Your task to perform on an android device: What's the weather going to be tomorrow? Image 0: 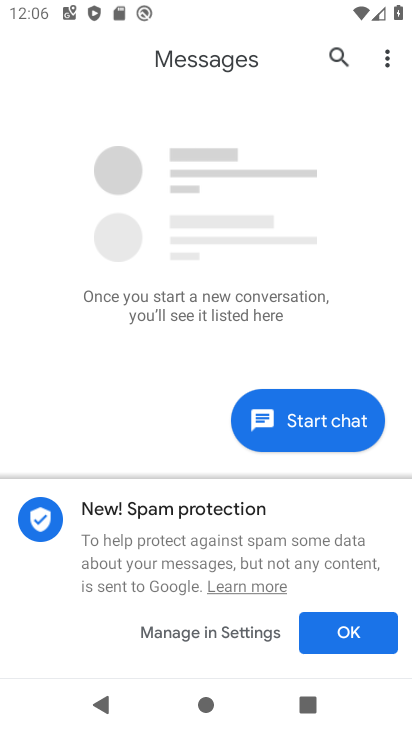
Step 0: click (362, 635)
Your task to perform on an android device: What's the weather going to be tomorrow? Image 1: 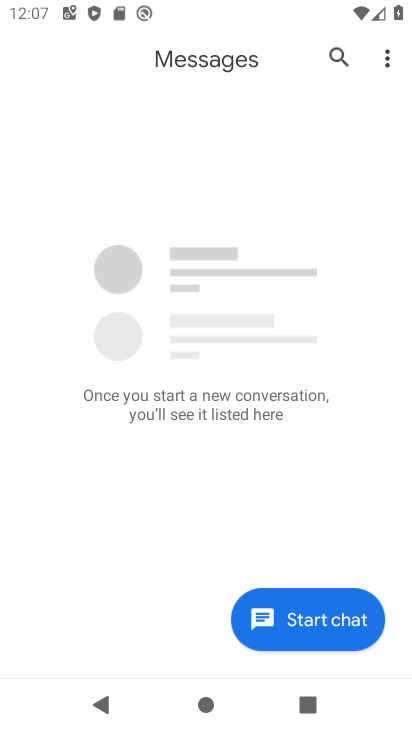
Step 1: press home button
Your task to perform on an android device: What's the weather going to be tomorrow? Image 2: 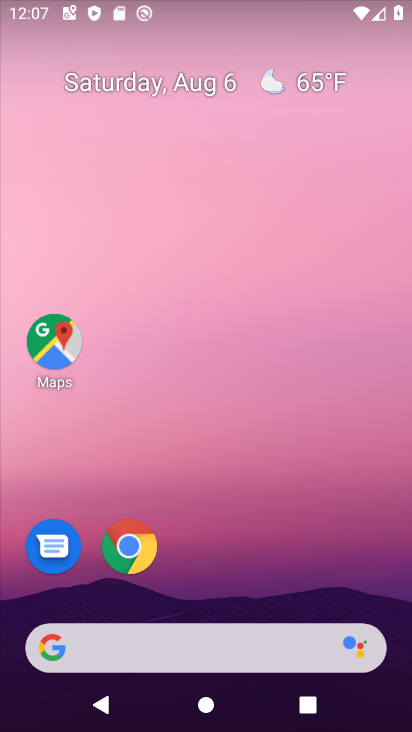
Step 2: drag from (217, 479) to (368, 1)
Your task to perform on an android device: What's the weather going to be tomorrow? Image 3: 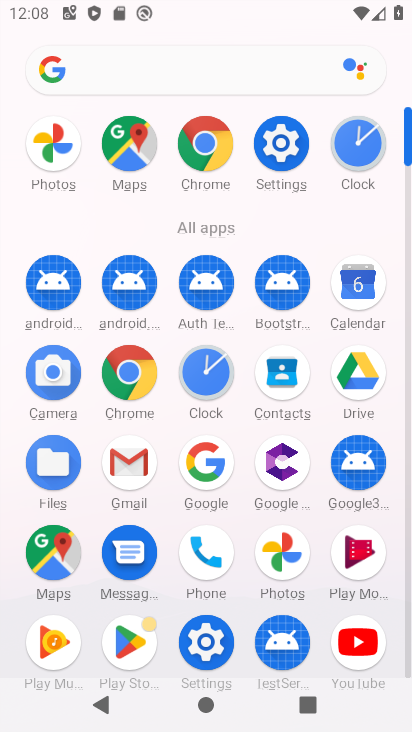
Step 3: click (135, 388)
Your task to perform on an android device: What's the weather going to be tomorrow? Image 4: 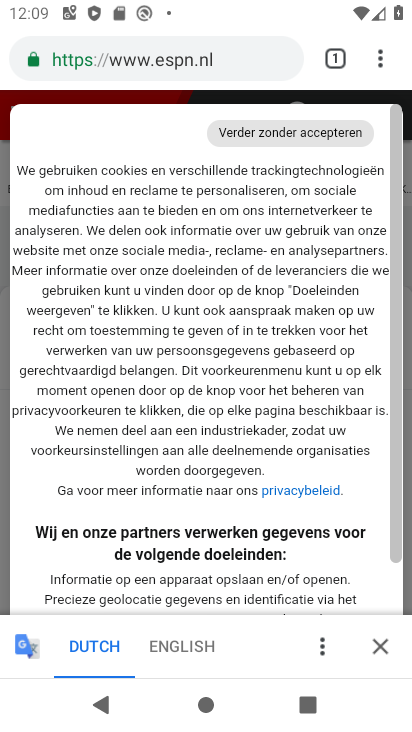
Step 4: click (339, 50)
Your task to perform on an android device: What's the weather going to be tomorrow? Image 5: 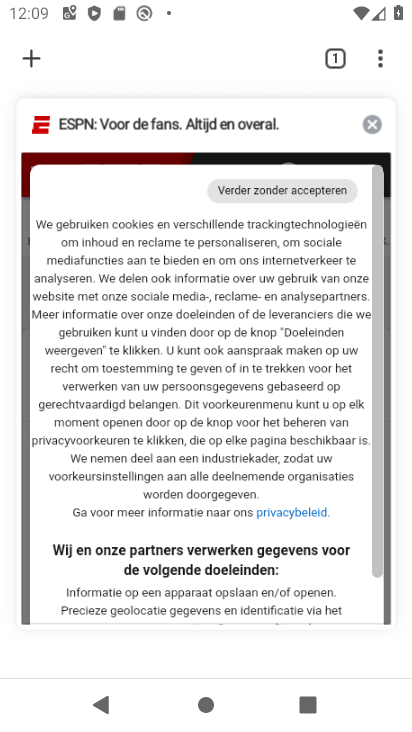
Step 5: click (20, 55)
Your task to perform on an android device: What's the weather going to be tomorrow? Image 6: 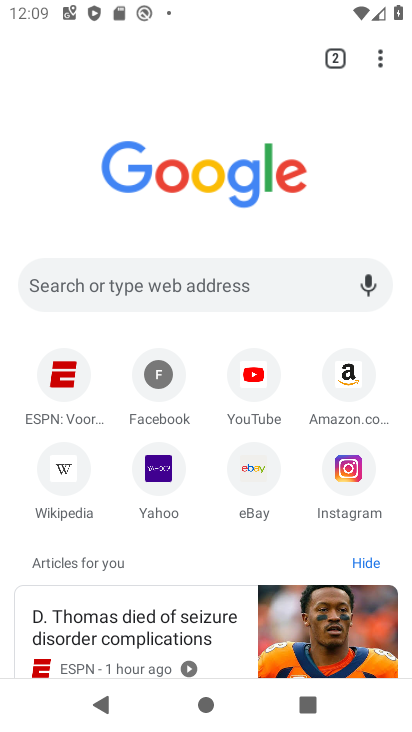
Step 6: click (193, 297)
Your task to perform on an android device: What's the weather going to be tomorrow? Image 7: 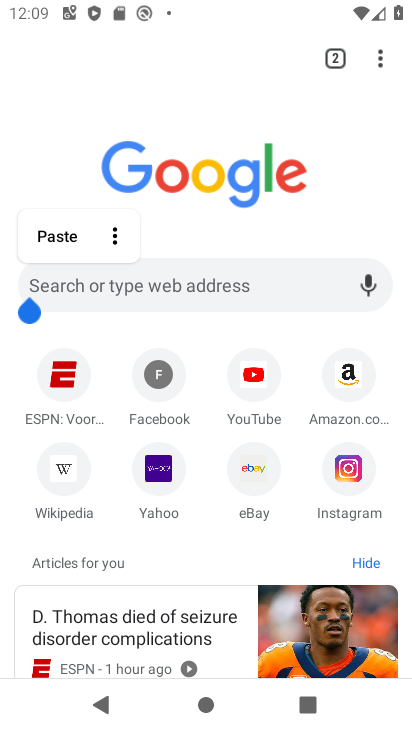
Step 7: click (159, 294)
Your task to perform on an android device: What's the weather going to be tomorrow? Image 8: 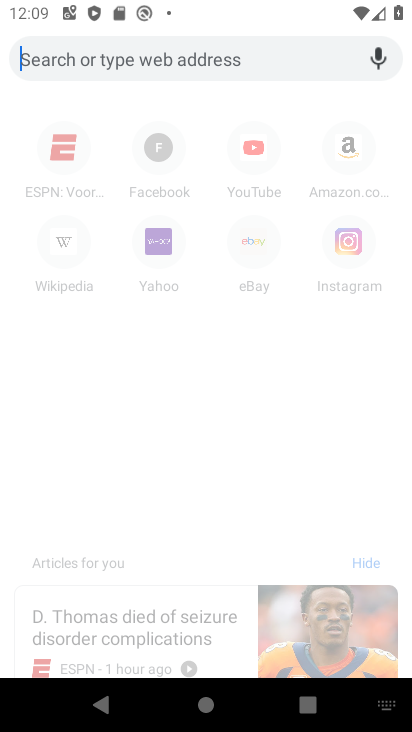
Step 8: type "weather"
Your task to perform on an android device: What's the weather going to be tomorrow? Image 9: 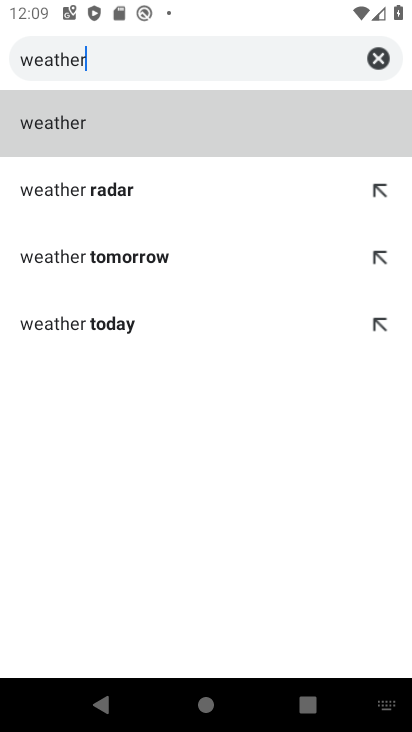
Step 9: type ""
Your task to perform on an android device: What's the weather going to be tomorrow? Image 10: 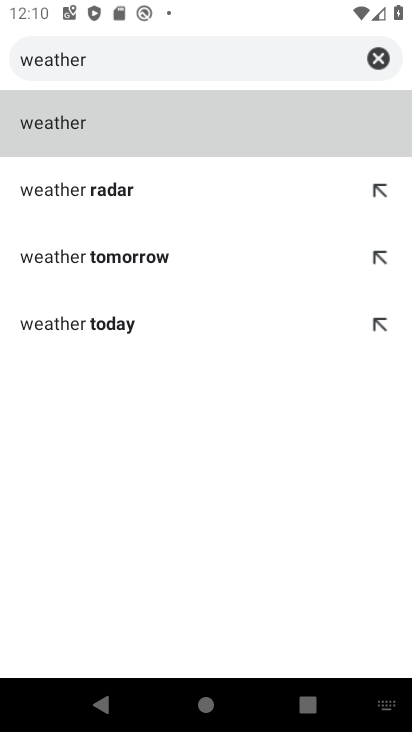
Step 10: click (210, 264)
Your task to perform on an android device: What's the weather going to be tomorrow? Image 11: 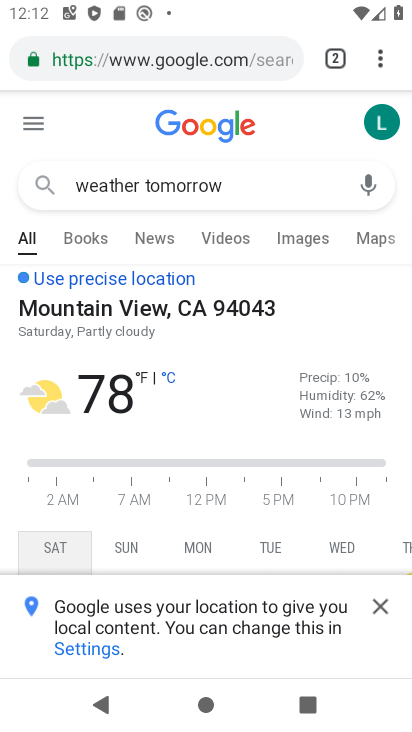
Step 11: task complete